Your task to perform on an android device: visit the assistant section in the google photos Image 0: 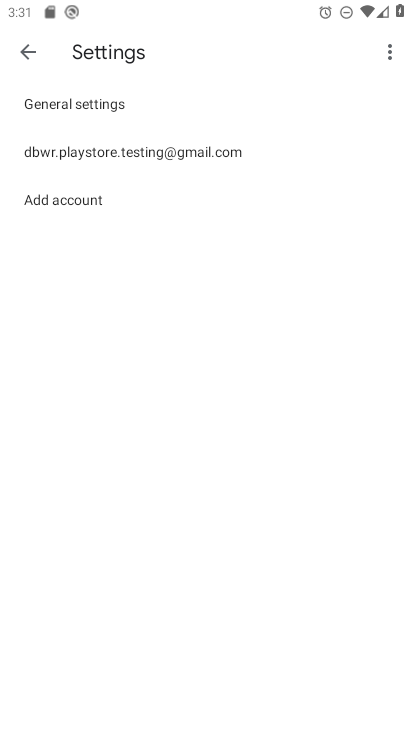
Step 0: press home button
Your task to perform on an android device: visit the assistant section in the google photos Image 1: 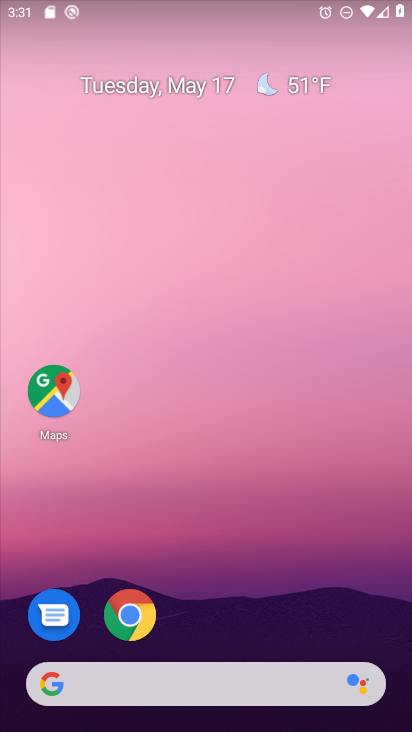
Step 1: drag from (207, 633) to (236, 83)
Your task to perform on an android device: visit the assistant section in the google photos Image 2: 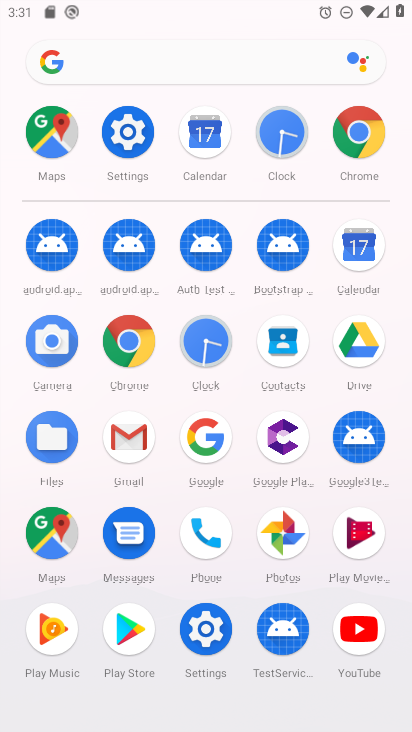
Step 2: click (277, 521)
Your task to perform on an android device: visit the assistant section in the google photos Image 3: 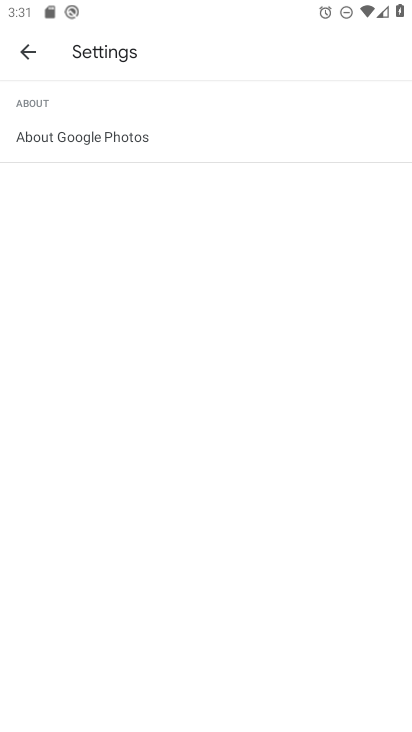
Step 3: press home button
Your task to perform on an android device: visit the assistant section in the google photos Image 4: 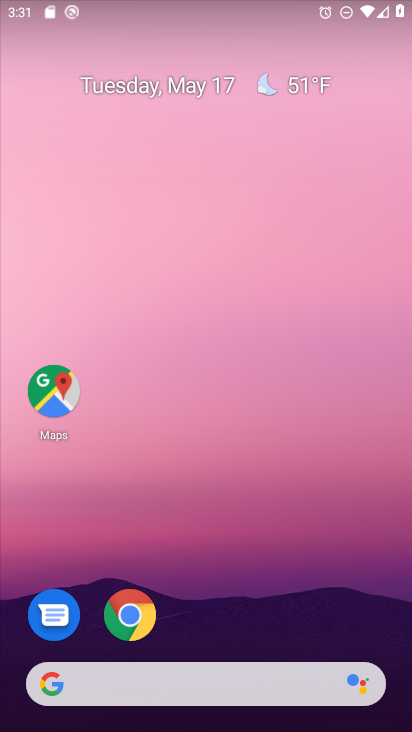
Step 4: drag from (209, 636) to (219, 92)
Your task to perform on an android device: visit the assistant section in the google photos Image 5: 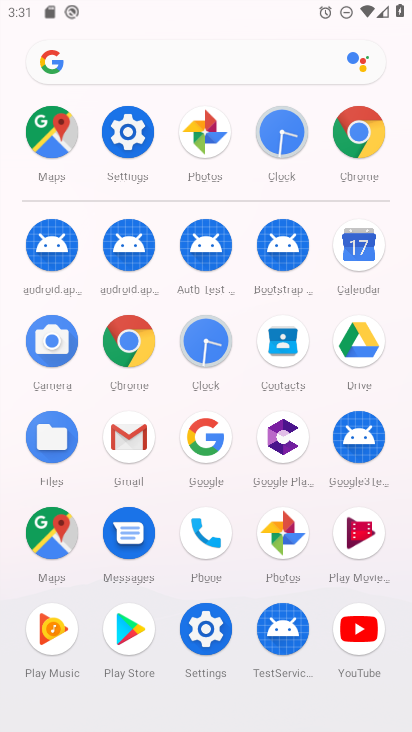
Step 5: click (192, 123)
Your task to perform on an android device: visit the assistant section in the google photos Image 6: 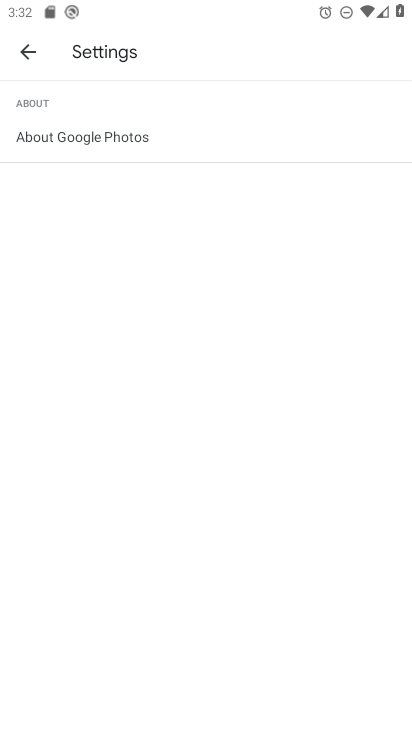
Step 6: click (32, 51)
Your task to perform on an android device: visit the assistant section in the google photos Image 7: 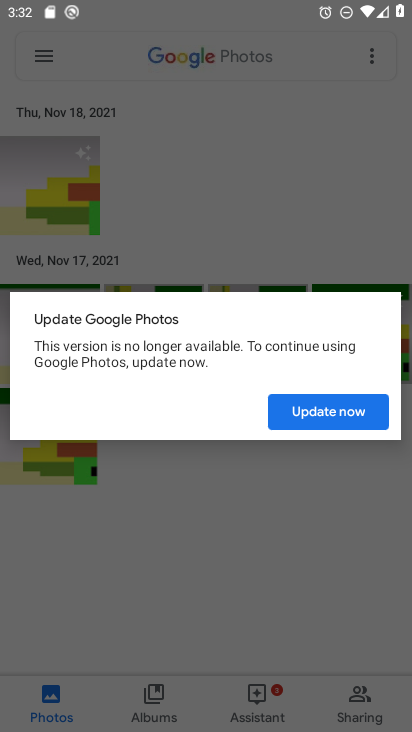
Step 7: click (307, 417)
Your task to perform on an android device: visit the assistant section in the google photos Image 8: 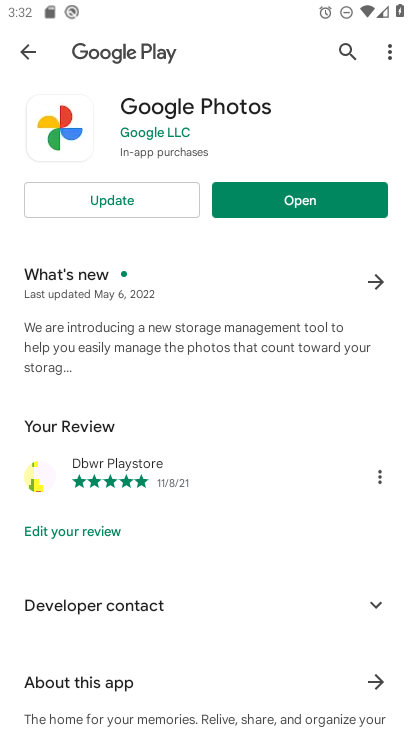
Step 8: click (109, 200)
Your task to perform on an android device: visit the assistant section in the google photos Image 9: 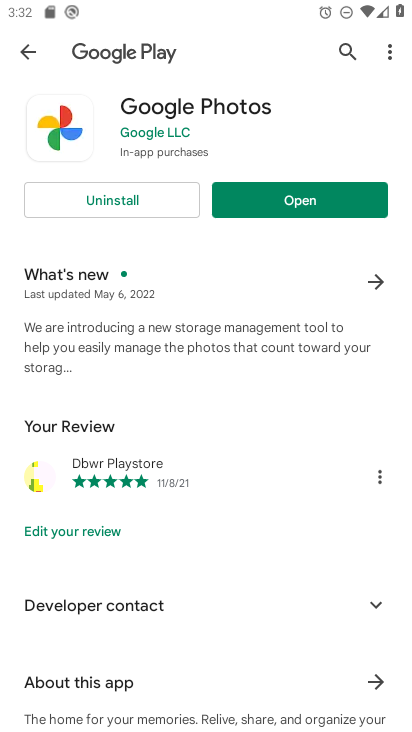
Step 9: click (299, 200)
Your task to perform on an android device: visit the assistant section in the google photos Image 10: 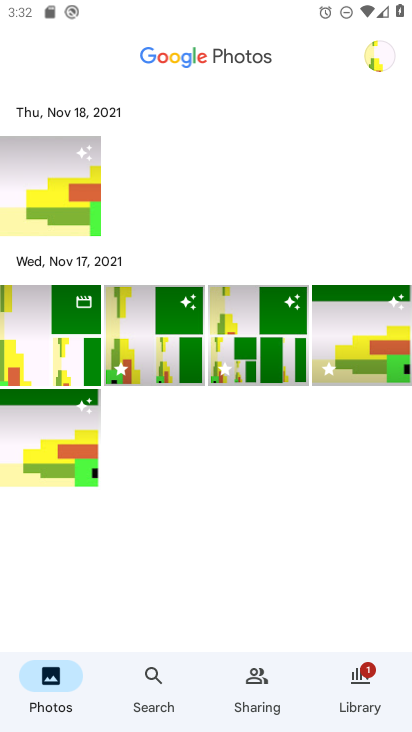
Step 10: click (154, 676)
Your task to perform on an android device: visit the assistant section in the google photos Image 11: 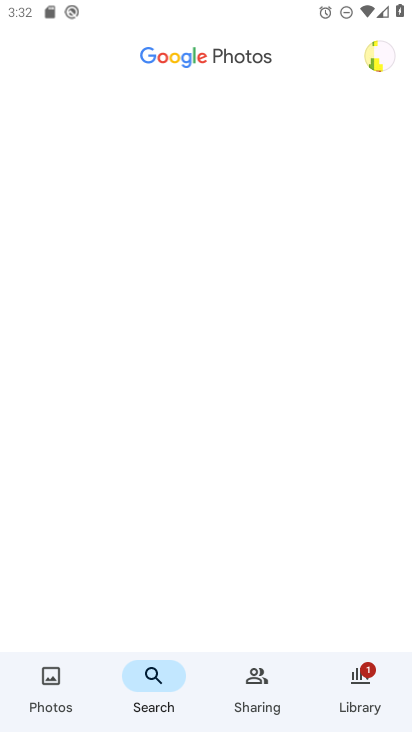
Step 11: task complete